Your task to perform on an android device: toggle translation in the chrome app Image 0: 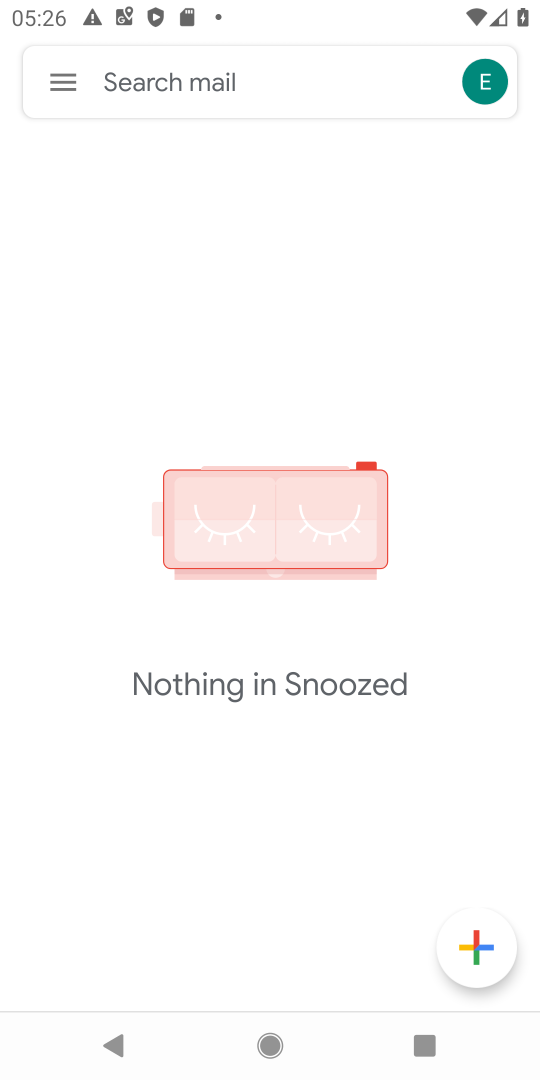
Step 0: press home button
Your task to perform on an android device: toggle translation in the chrome app Image 1: 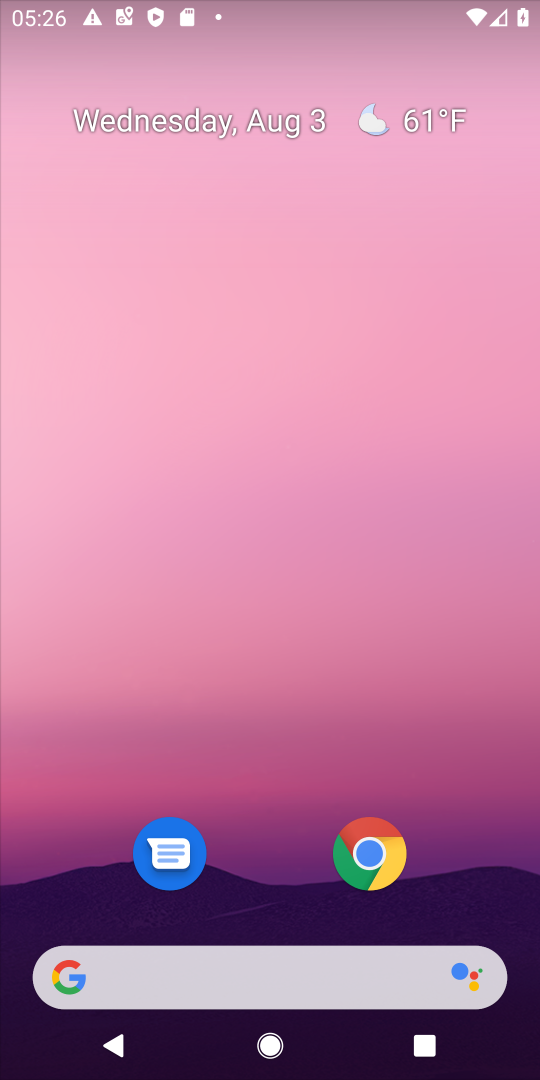
Step 1: drag from (284, 905) to (282, 456)
Your task to perform on an android device: toggle translation in the chrome app Image 2: 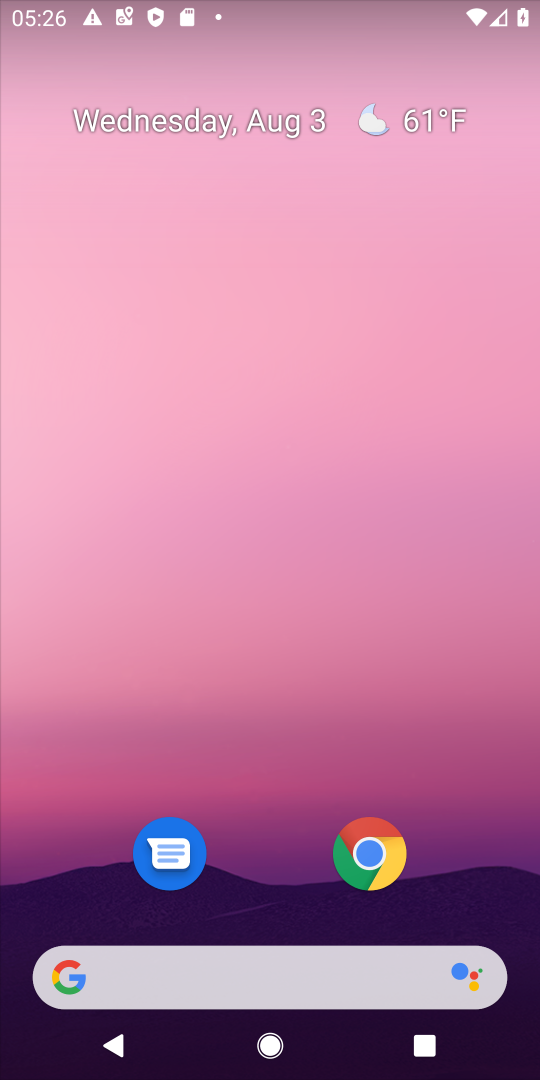
Step 2: click (372, 869)
Your task to perform on an android device: toggle translation in the chrome app Image 3: 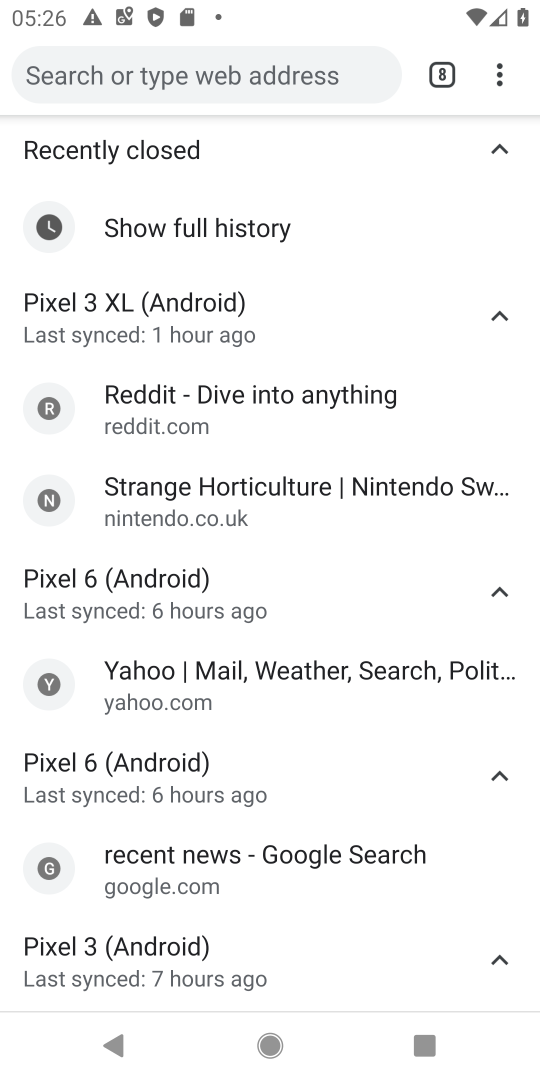
Step 3: click (503, 76)
Your task to perform on an android device: toggle translation in the chrome app Image 4: 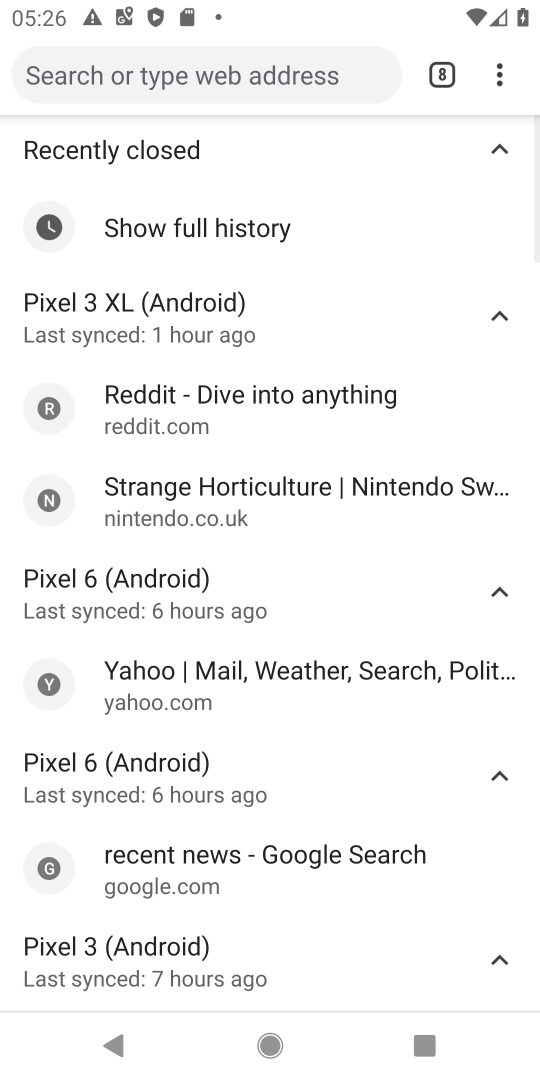
Step 4: click (499, 82)
Your task to perform on an android device: toggle translation in the chrome app Image 5: 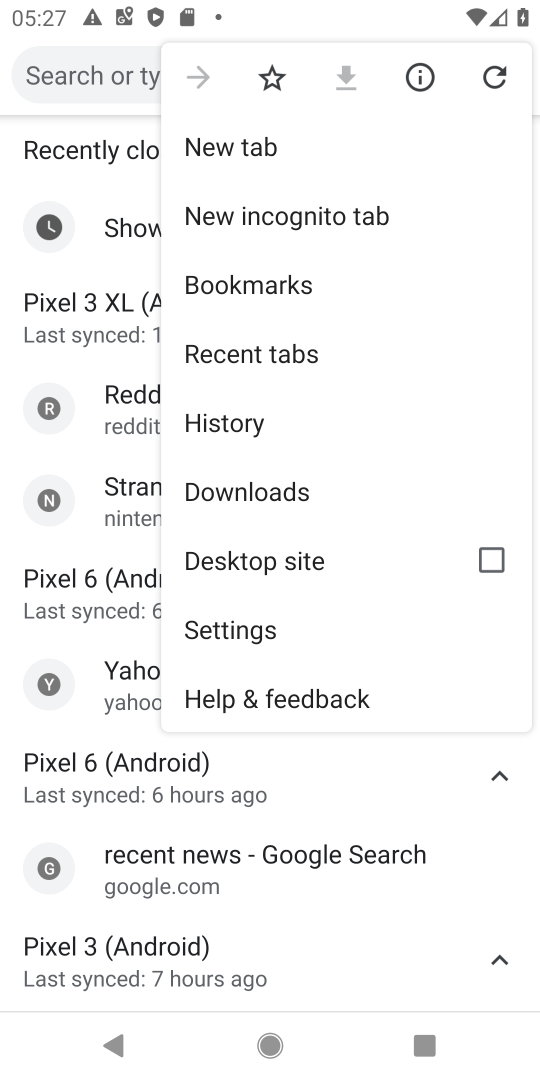
Step 5: click (223, 628)
Your task to perform on an android device: toggle translation in the chrome app Image 6: 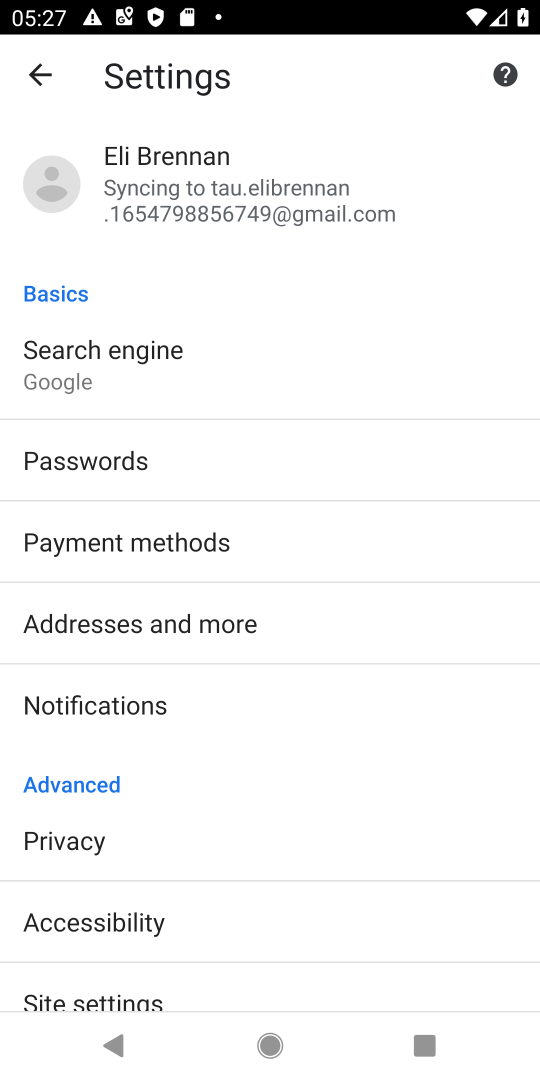
Step 6: drag from (127, 940) to (124, 459)
Your task to perform on an android device: toggle translation in the chrome app Image 7: 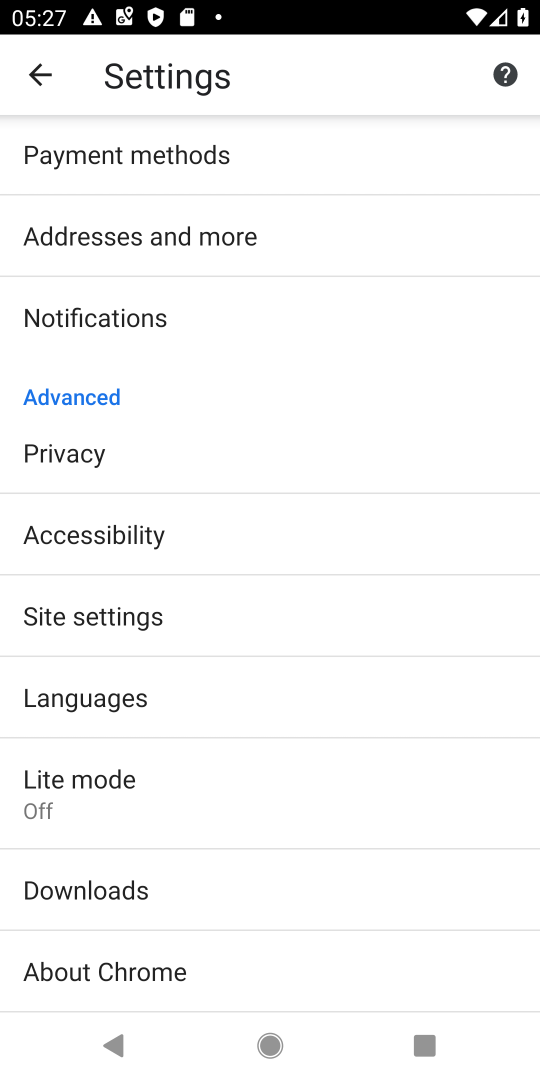
Step 7: click (91, 700)
Your task to perform on an android device: toggle translation in the chrome app Image 8: 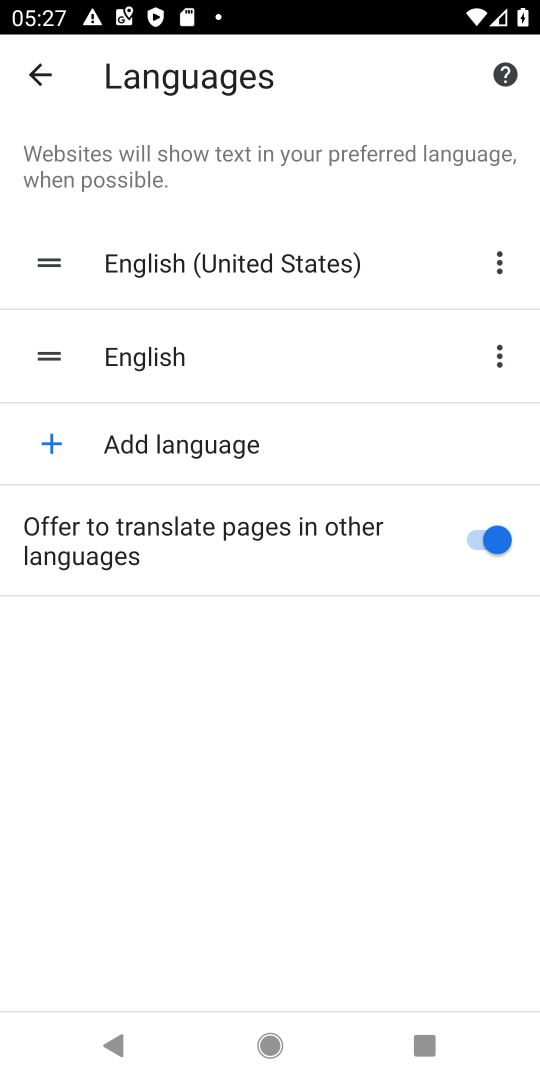
Step 8: click (488, 532)
Your task to perform on an android device: toggle translation in the chrome app Image 9: 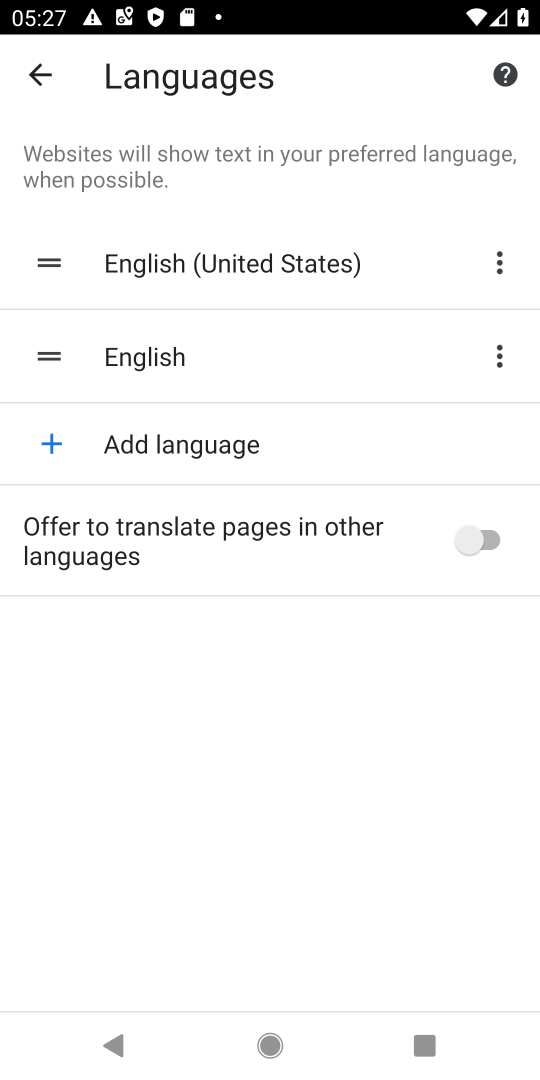
Step 9: task complete